Your task to perform on an android device: Clear all items from cart on newegg.com. Search for alienware area 51 on newegg.com, select the first entry, add it to the cart, then select checkout. Image 0: 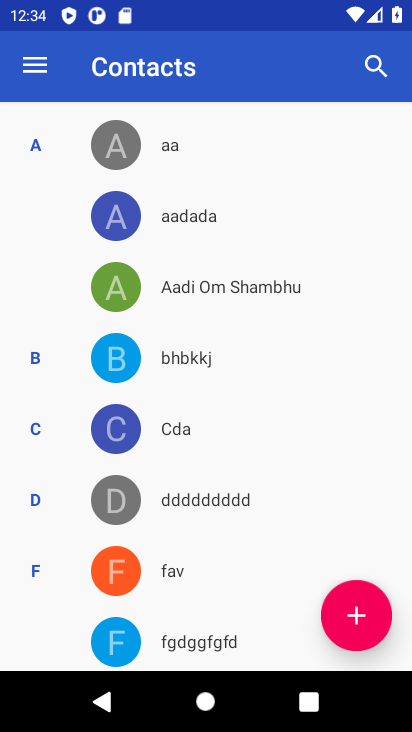
Step 0: press home button
Your task to perform on an android device: Clear all items from cart on newegg.com. Search for alienware area 51 on newegg.com, select the first entry, add it to the cart, then select checkout. Image 1: 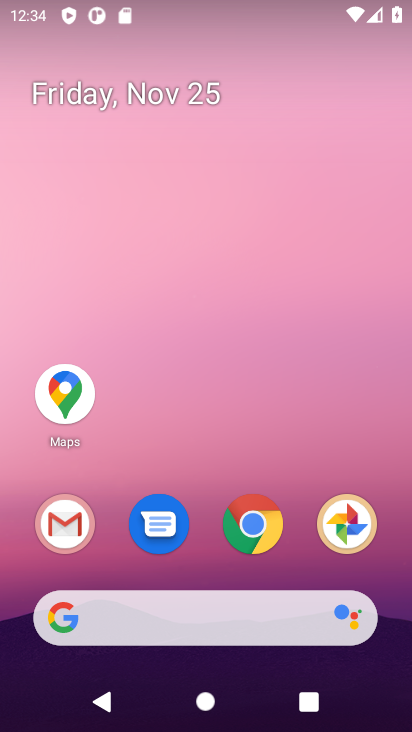
Step 1: click (258, 519)
Your task to perform on an android device: Clear all items from cart on newegg.com. Search for alienware area 51 on newegg.com, select the first entry, add it to the cart, then select checkout. Image 2: 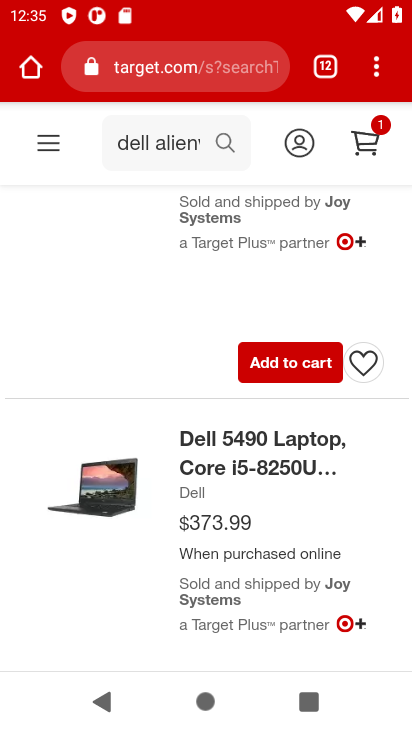
Step 2: click (157, 66)
Your task to perform on an android device: Clear all items from cart on newegg.com. Search for alienware area 51 on newegg.com, select the first entry, add it to the cart, then select checkout. Image 3: 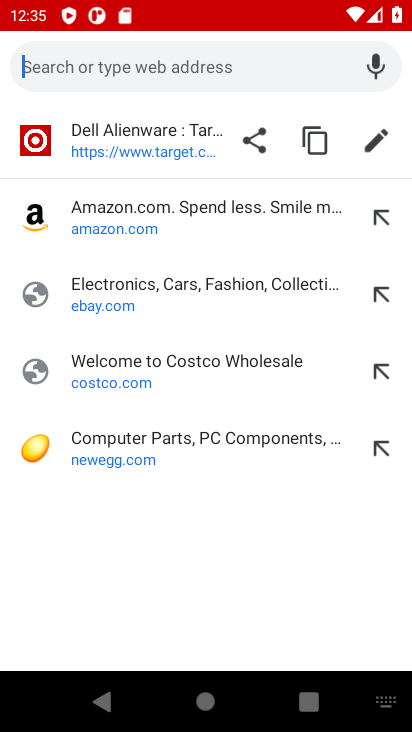
Step 3: click (115, 463)
Your task to perform on an android device: Clear all items from cart on newegg.com. Search for alienware area 51 on newegg.com, select the first entry, add it to the cart, then select checkout. Image 4: 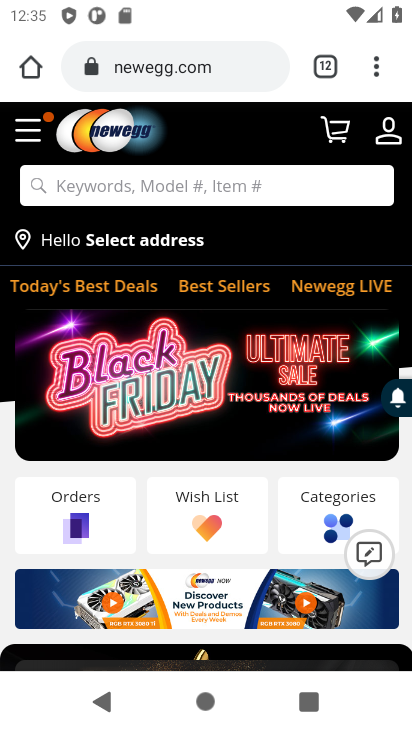
Step 4: click (334, 130)
Your task to perform on an android device: Clear all items from cart on newegg.com. Search for alienware area 51 on newegg.com, select the first entry, add it to the cart, then select checkout. Image 5: 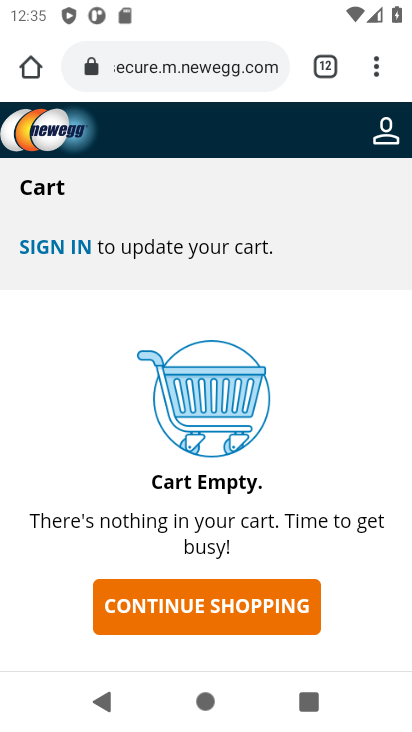
Step 5: click (215, 605)
Your task to perform on an android device: Clear all items from cart on newegg.com. Search for alienware area 51 on newegg.com, select the first entry, add it to the cart, then select checkout. Image 6: 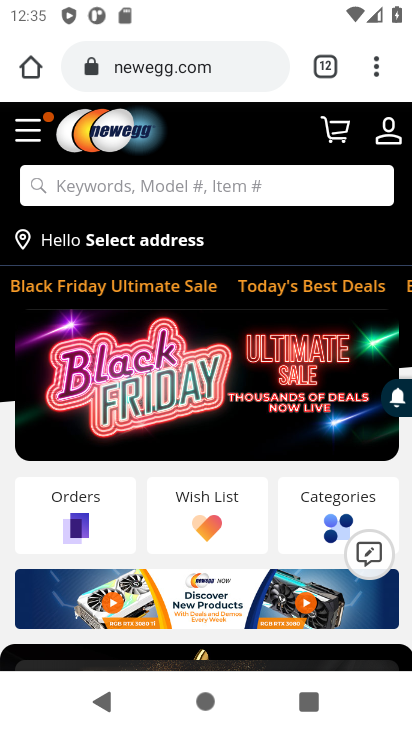
Step 6: click (123, 189)
Your task to perform on an android device: Clear all items from cart on newegg.com. Search for alienware area 51 on newegg.com, select the first entry, add it to the cart, then select checkout. Image 7: 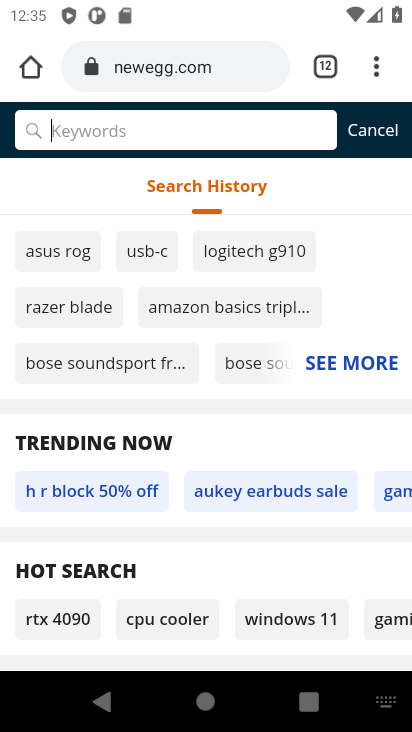
Step 7: type " alienware area 51"
Your task to perform on an android device: Clear all items from cart on newegg.com. Search for alienware area 51 on newegg.com, select the first entry, add it to the cart, then select checkout. Image 8: 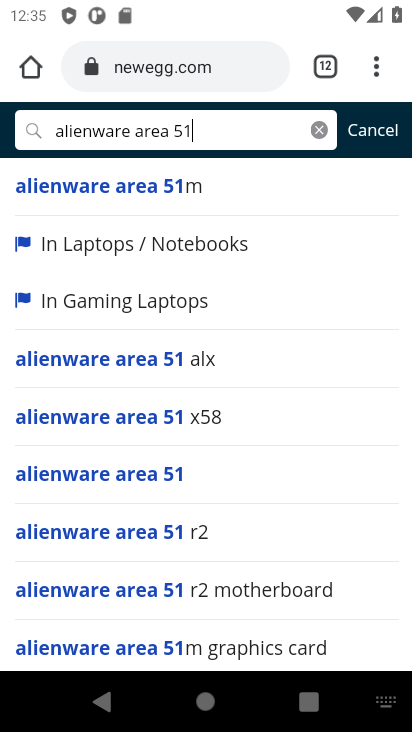
Step 8: click (106, 483)
Your task to perform on an android device: Clear all items from cart on newegg.com. Search for alienware area 51 on newegg.com, select the first entry, add it to the cart, then select checkout. Image 9: 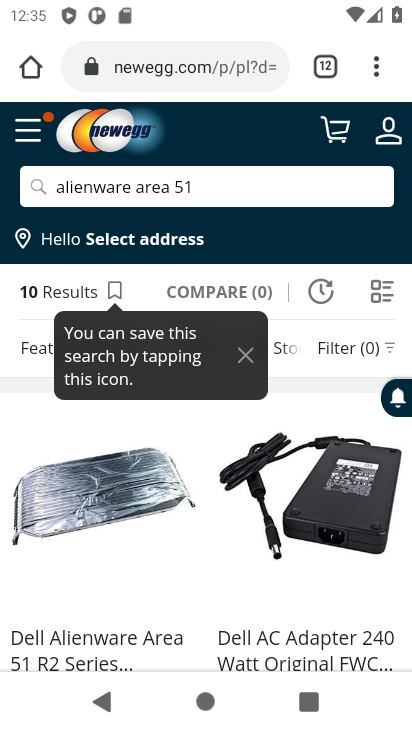
Step 9: drag from (161, 527) to (199, 232)
Your task to perform on an android device: Clear all items from cart on newegg.com. Search for alienware area 51 on newegg.com, select the first entry, add it to the cart, then select checkout. Image 10: 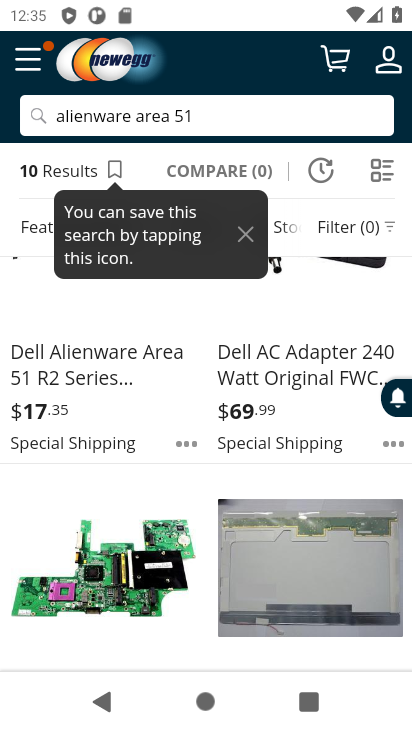
Step 10: drag from (129, 483) to (129, 660)
Your task to perform on an android device: Clear all items from cart on newegg.com. Search for alienware area 51 on newegg.com, select the first entry, add it to the cart, then select checkout. Image 11: 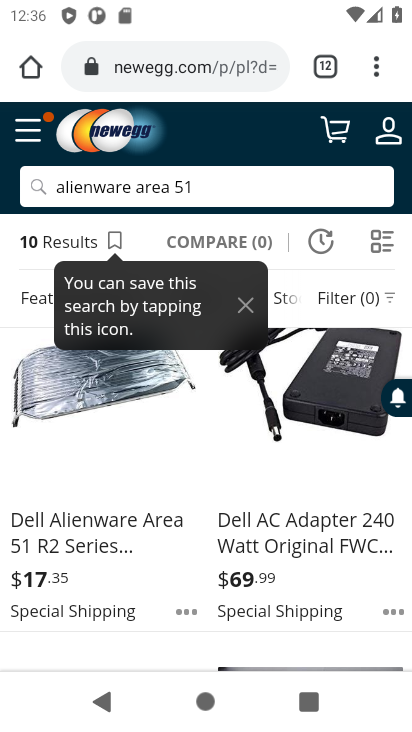
Step 11: click (75, 392)
Your task to perform on an android device: Clear all items from cart on newegg.com. Search for alienware area 51 on newegg.com, select the first entry, add it to the cart, then select checkout. Image 12: 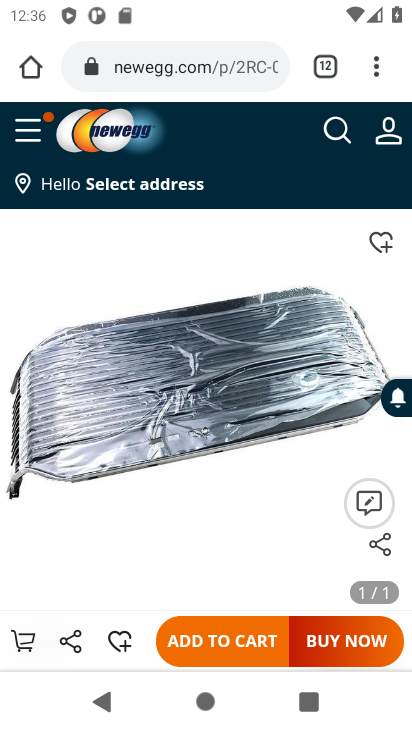
Step 12: click (238, 639)
Your task to perform on an android device: Clear all items from cart on newegg.com. Search for alienware area 51 on newegg.com, select the first entry, add it to the cart, then select checkout. Image 13: 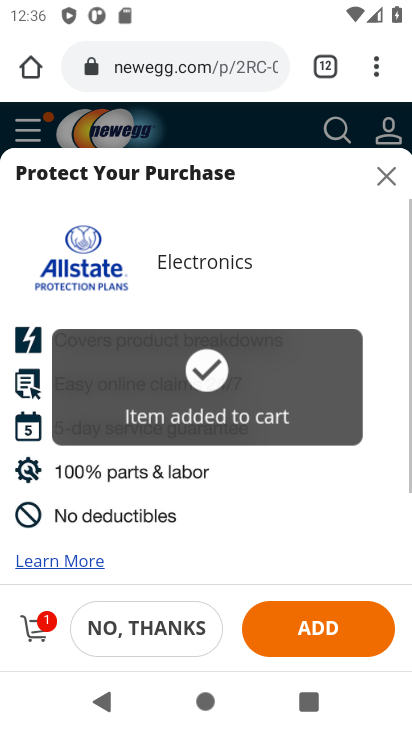
Step 13: click (42, 629)
Your task to perform on an android device: Clear all items from cart on newegg.com. Search for alienware area 51 on newegg.com, select the first entry, add it to the cart, then select checkout. Image 14: 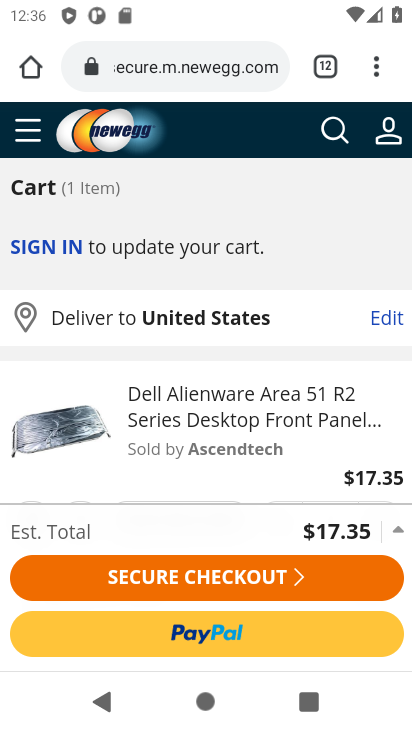
Step 14: click (215, 632)
Your task to perform on an android device: Clear all items from cart on newegg.com. Search for alienware area 51 on newegg.com, select the first entry, add it to the cart, then select checkout. Image 15: 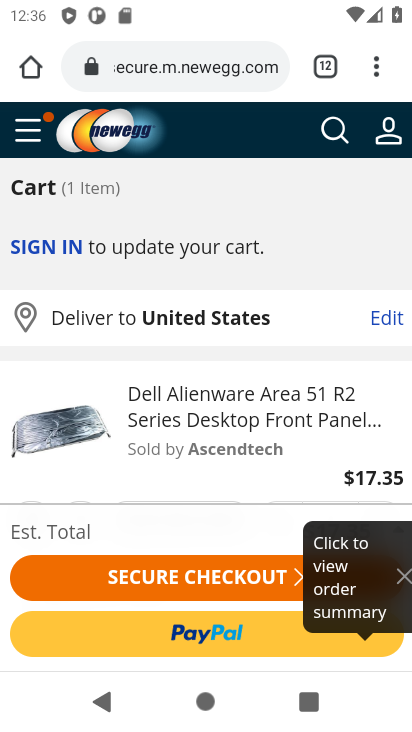
Step 15: click (222, 579)
Your task to perform on an android device: Clear all items from cart on newegg.com. Search for alienware area 51 on newegg.com, select the first entry, add it to the cart, then select checkout. Image 16: 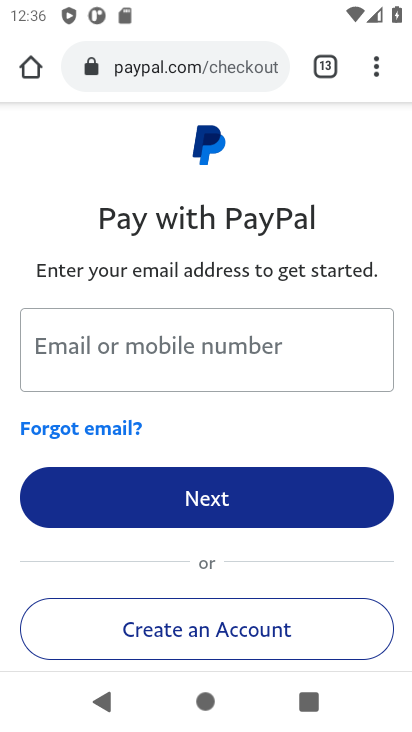
Step 16: task complete